Your task to perform on an android device: turn notification dots on Image 0: 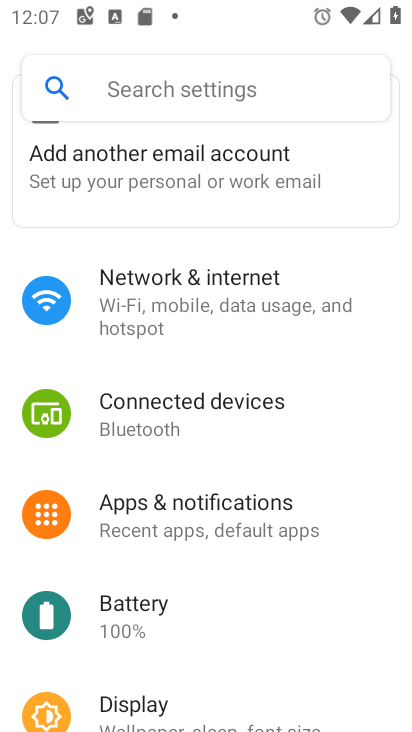
Step 0: click (261, 520)
Your task to perform on an android device: turn notification dots on Image 1: 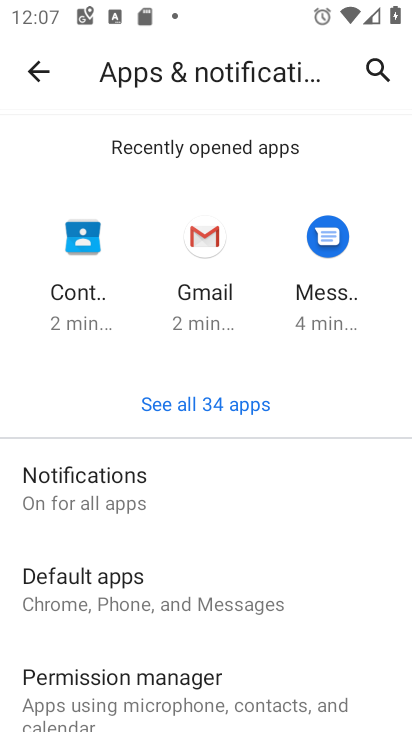
Step 1: click (175, 490)
Your task to perform on an android device: turn notification dots on Image 2: 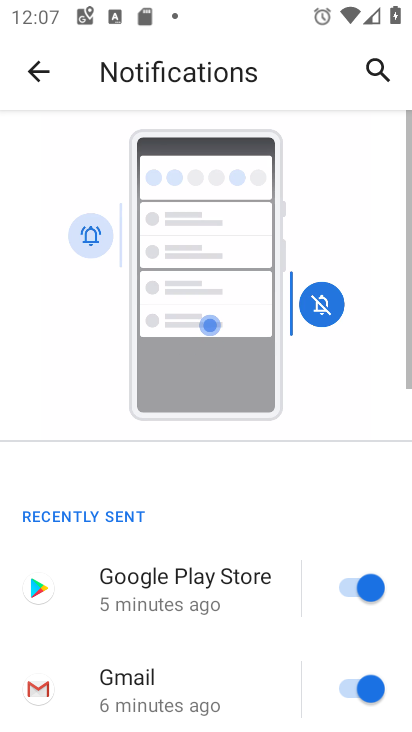
Step 2: drag from (170, 567) to (207, 247)
Your task to perform on an android device: turn notification dots on Image 3: 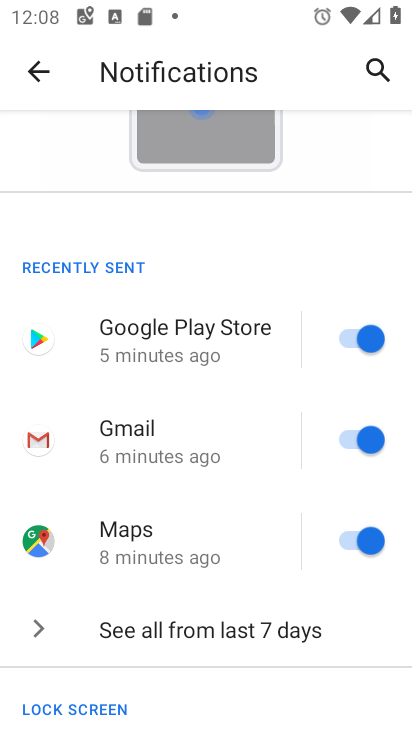
Step 3: drag from (145, 591) to (179, 285)
Your task to perform on an android device: turn notification dots on Image 4: 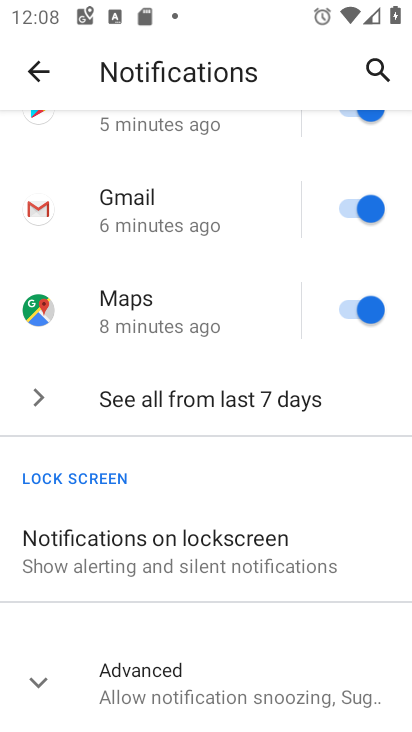
Step 4: click (169, 666)
Your task to perform on an android device: turn notification dots on Image 5: 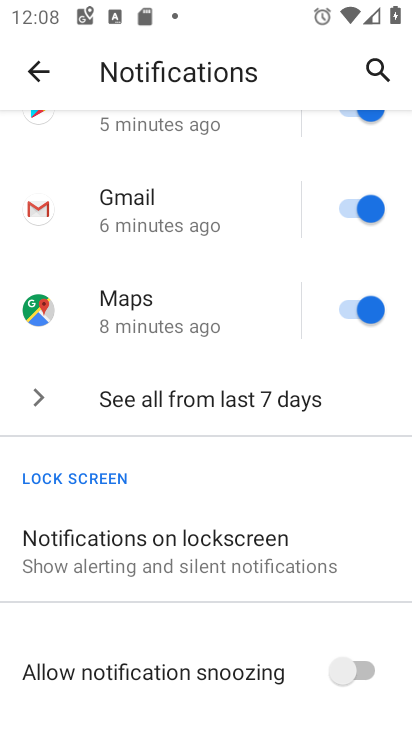
Step 5: drag from (182, 585) to (251, 174)
Your task to perform on an android device: turn notification dots on Image 6: 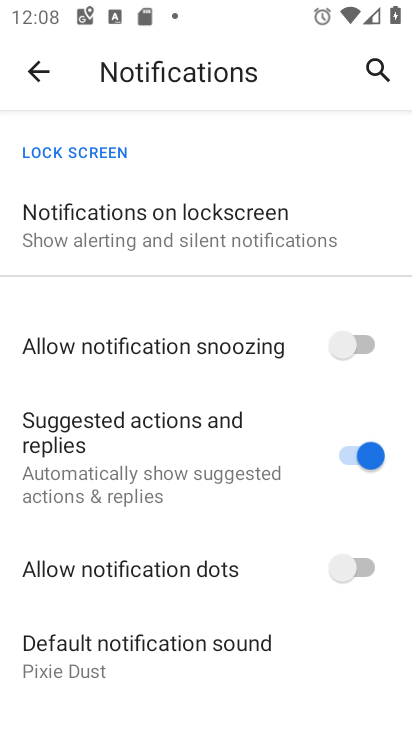
Step 6: drag from (252, 635) to (254, 479)
Your task to perform on an android device: turn notification dots on Image 7: 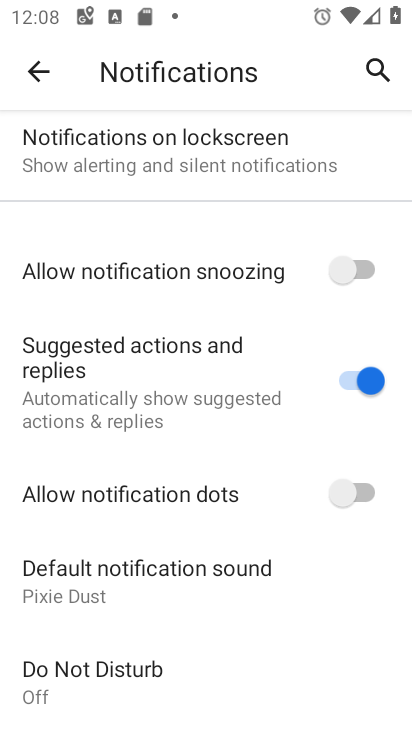
Step 7: click (273, 498)
Your task to perform on an android device: turn notification dots on Image 8: 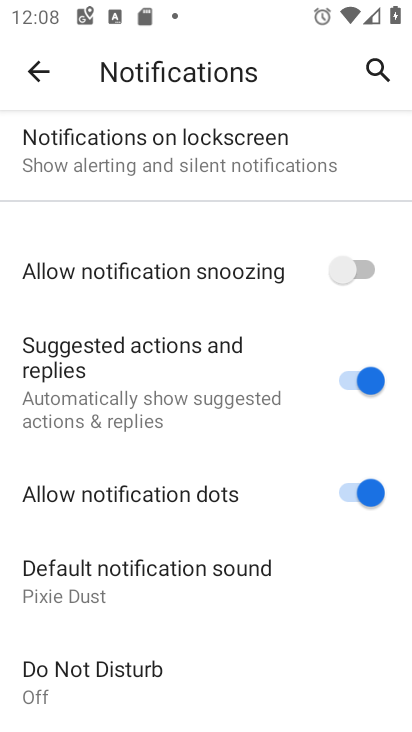
Step 8: task complete